Your task to perform on an android device: turn off picture-in-picture Image 0: 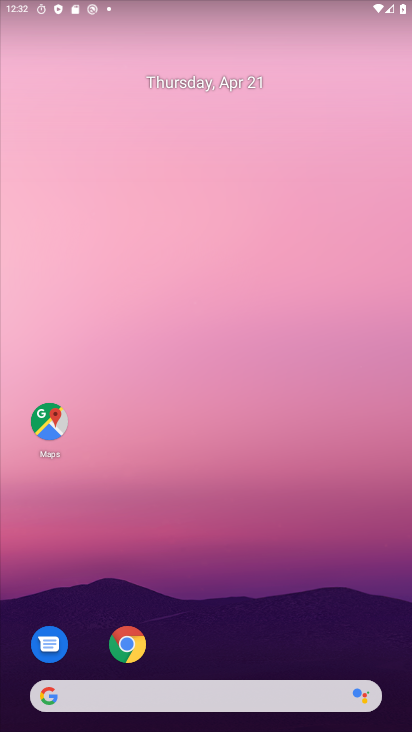
Step 0: drag from (289, 338) to (360, 15)
Your task to perform on an android device: turn off picture-in-picture Image 1: 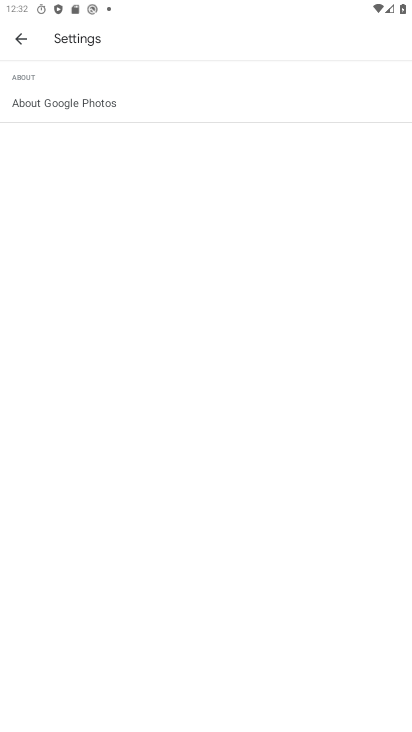
Step 1: press back button
Your task to perform on an android device: turn off picture-in-picture Image 2: 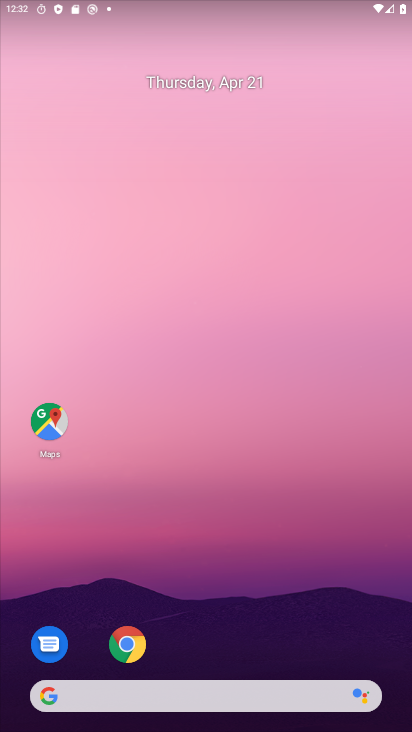
Step 2: press home button
Your task to perform on an android device: turn off picture-in-picture Image 3: 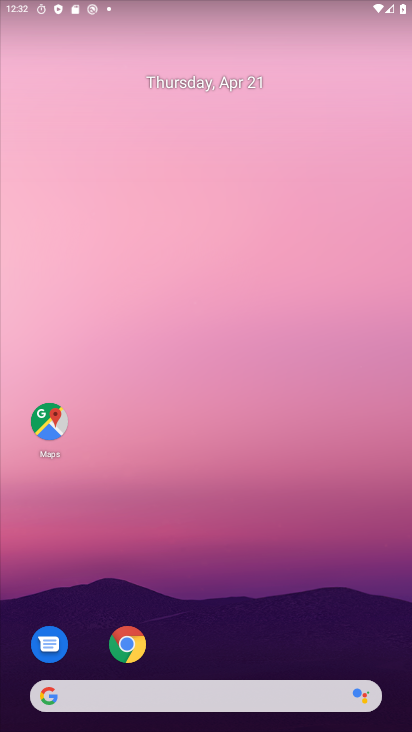
Step 3: drag from (226, 611) to (310, 15)
Your task to perform on an android device: turn off picture-in-picture Image 4: 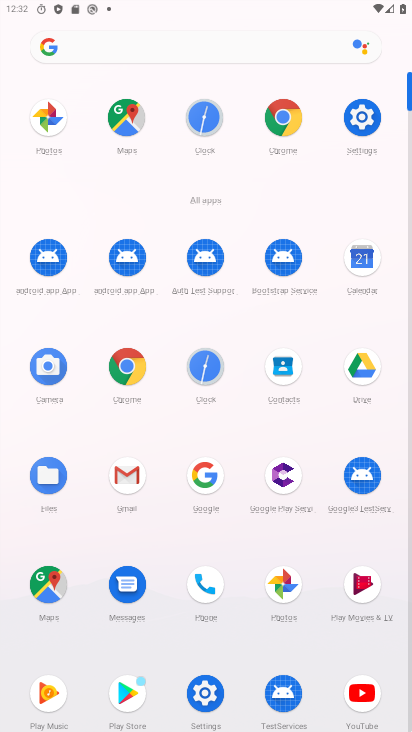
Step 4: click (363, 113)
Your task to perform on an android device: turn off picture-in-picture Image 5: 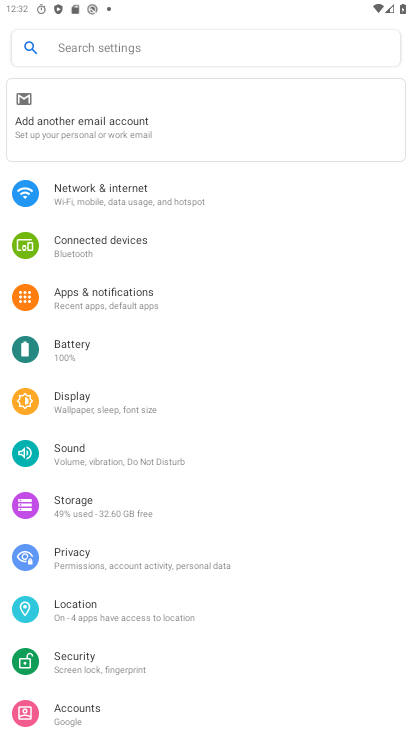
Step 5: click (105, 296)
Your task to perform on an android device: turn off picture-in-picture Image 6: 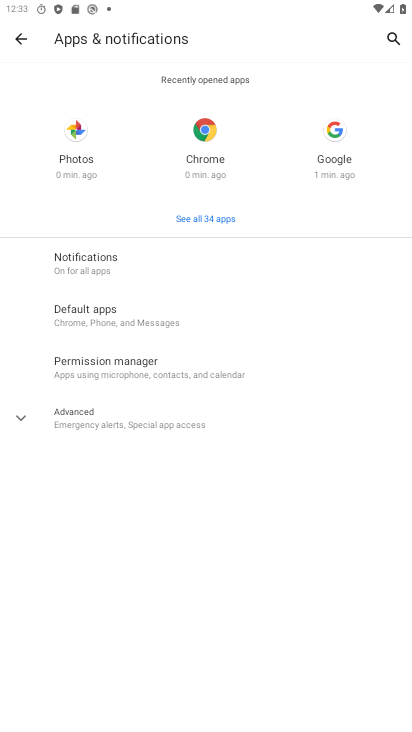
Step 6: click (121, 262)
Your task to perform on an android device: turn off picture-in-picture Image 7: 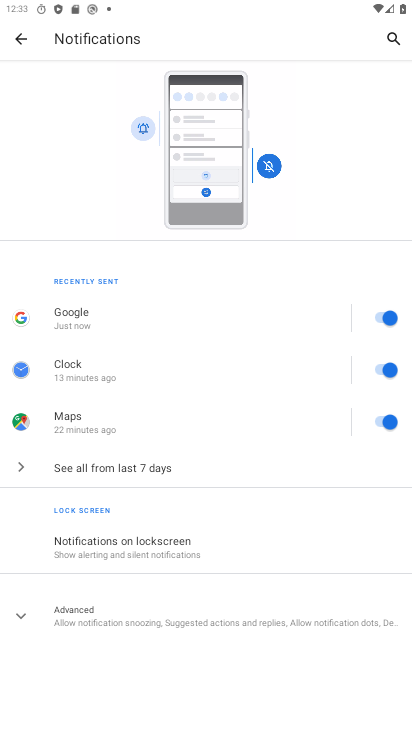
Step 7: drag from (166, 517) to (253, 69)
Your task to perform on an android device: turn off picture-in-picture Image 8: 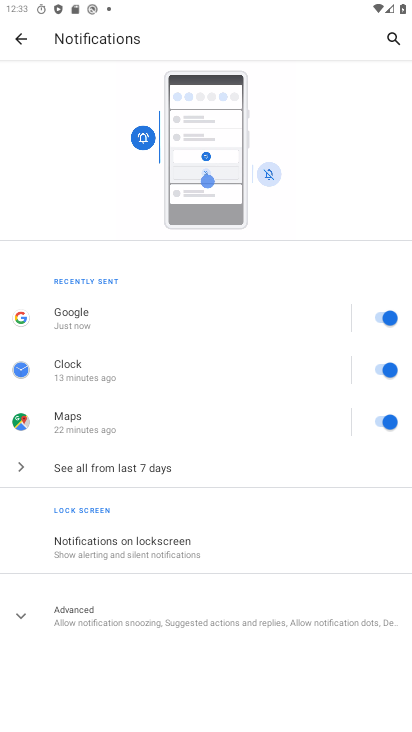
Step 8: click (150, 607)
Your task to perform on an android device: turn off picture-in-picture Image 9: 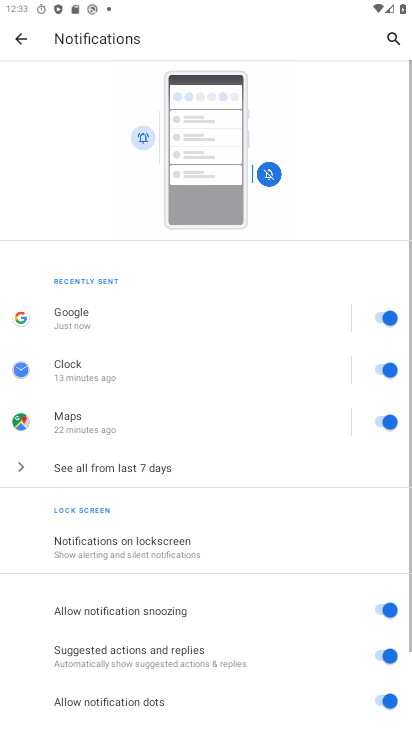
Step 9: drag from (143, 630) to (266, 41)
Your task to perform on an android device: turn off picture-in-picture Image 10: 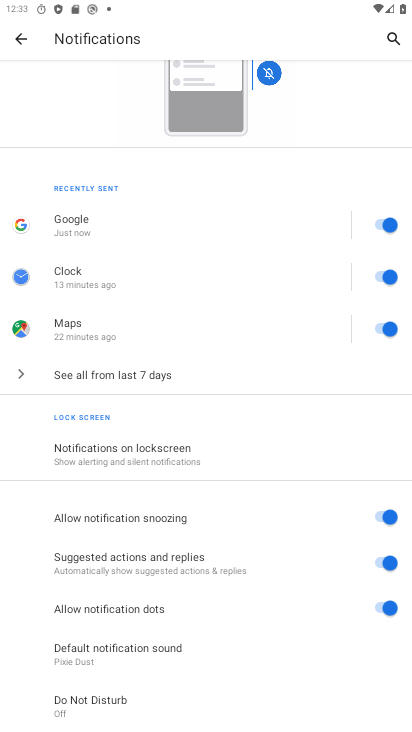
Step 10: drag from (128, 649) to (266, 75)
Your task to perform on an android device: turn off picture-in-picture Image 11: 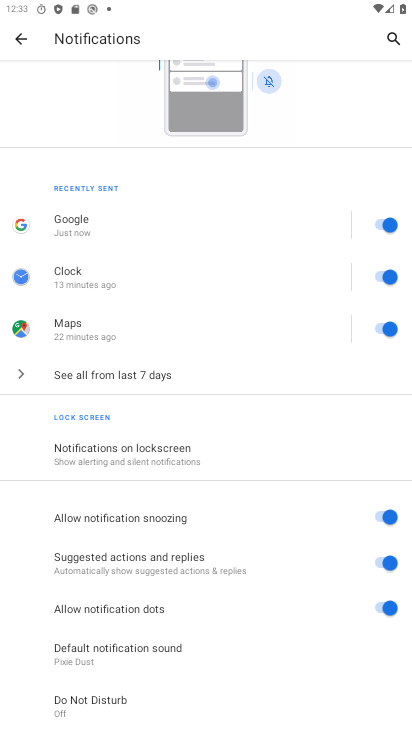
Step 11: click (21, 27)
Your task to perform on an android device: turn off picture-in-picture Image 12: 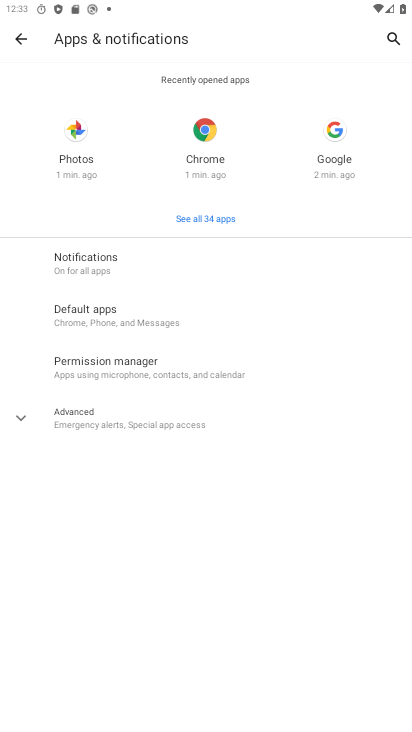
Step 12: click (107, 416)
Your task to perform on an android device: turn off picture-in-picture Image 13: 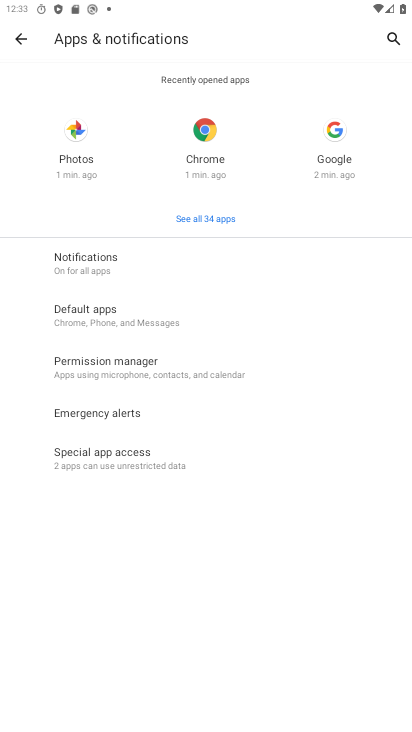
Step 13: click (100, 455)
Your task to perform on an android device: turn off picture-in-picture Image 14: 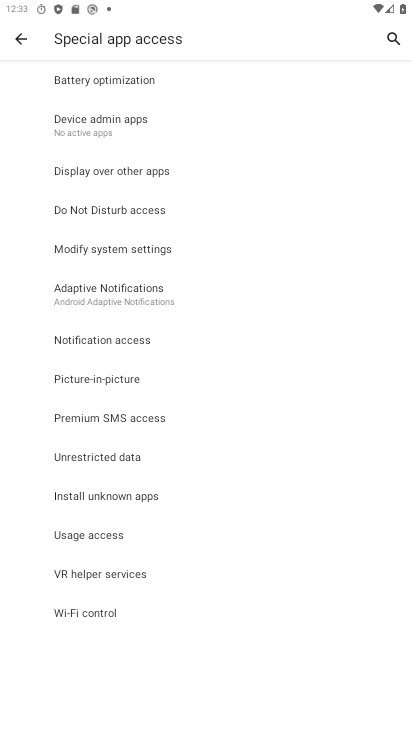
Step 14: click (106, 369)
Your task to perform on an android device: turn off picture-in-picture Image 15: 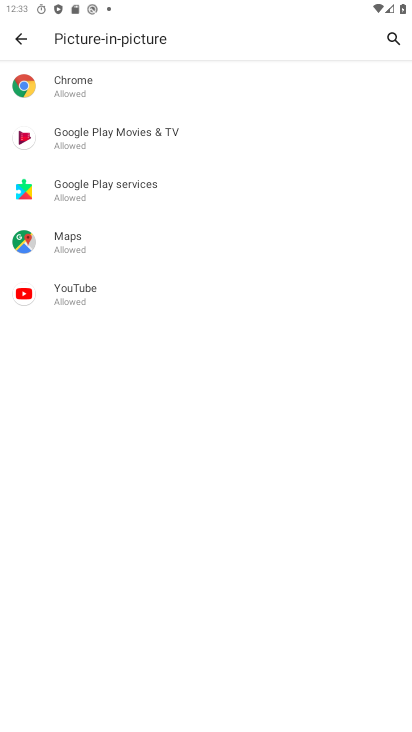
Step 15: click (94, 76)
Your task to perform on an android device: turn off picture-in-picture Image 16: 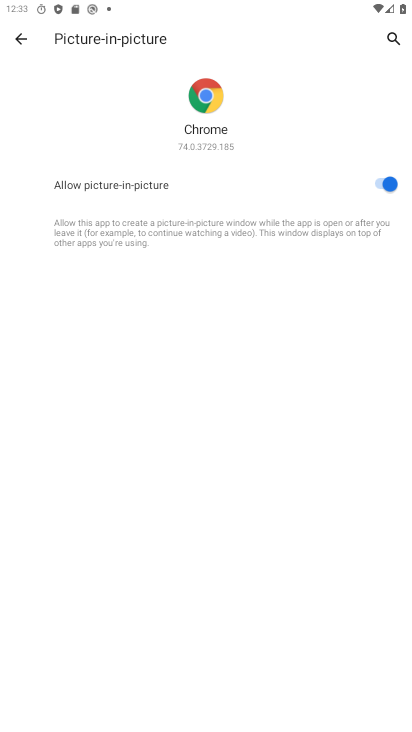
Step 16: click (379, 179)
Your task to perform on an android device: turn off picture-in-picture Image 17: 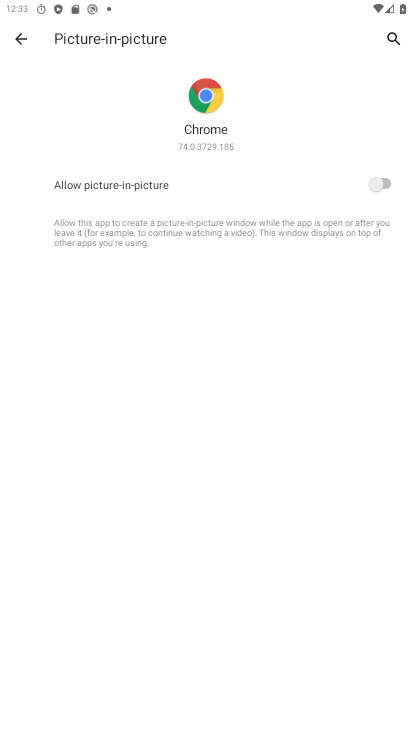
Step 17: task complete